Your task to perform on an android device: see tabs open on other devices in the chrome app Image 0: 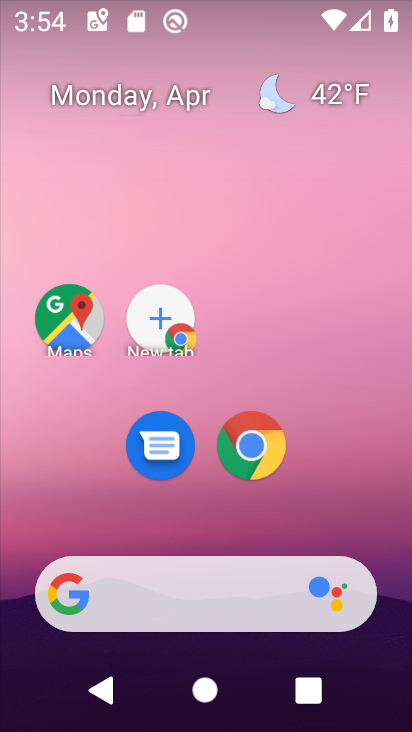
Step 0: click (249, 440)
Your task to perform on an android device: see tabs open on other devices in the chrome app Image 1: 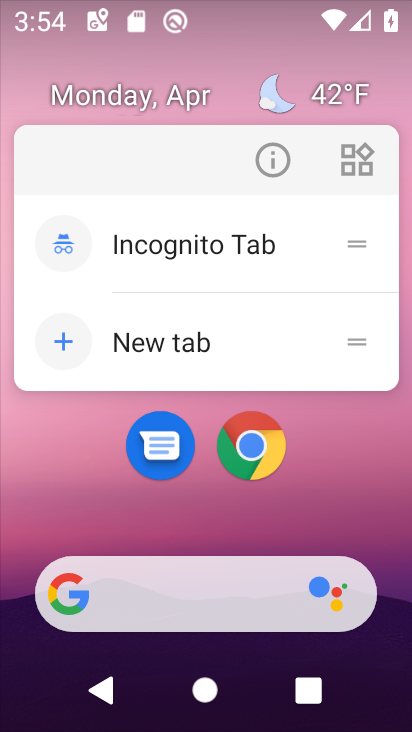
Step 1: click (249, 440)
Your task to perform on an android device: see tabs open on other devices in the chrome app Image 2: 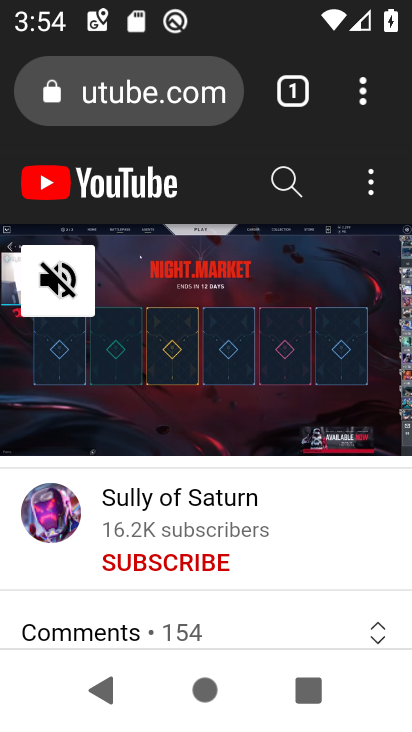
Step 2: click (365, 87)
Your task to perform on an android device: see tabs open on other devices in the chrome app Image 3: 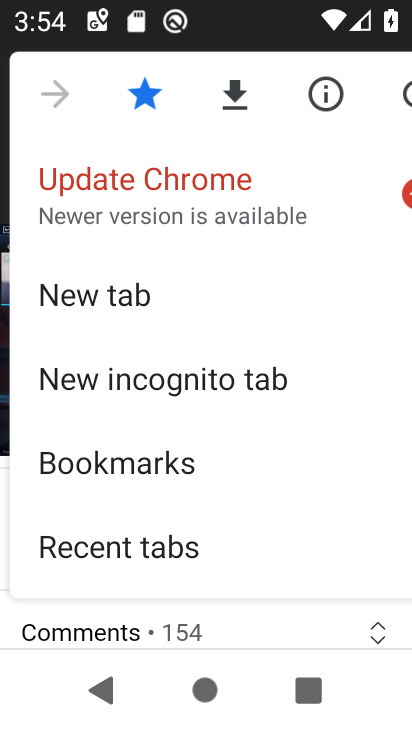
Step 3: drag from (201, 552) to (218, 362)
Your task to perform on an android device: see tabs open on other devices in the chrome app Image 4: 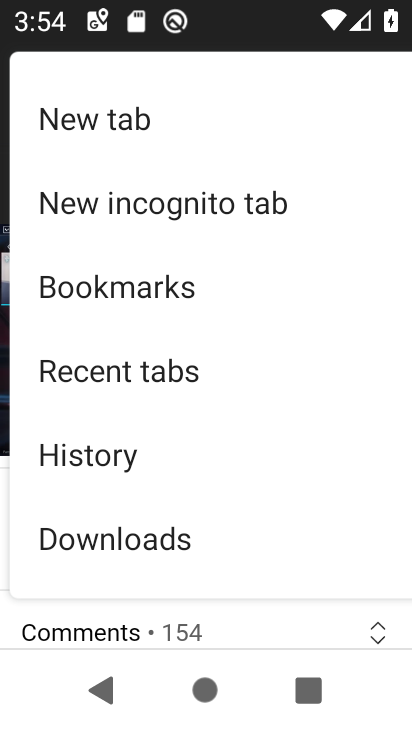
Step 4: click (213, 365)
Your task to perform on an android device: see tabs open on other devices in the chrome app Image 5: 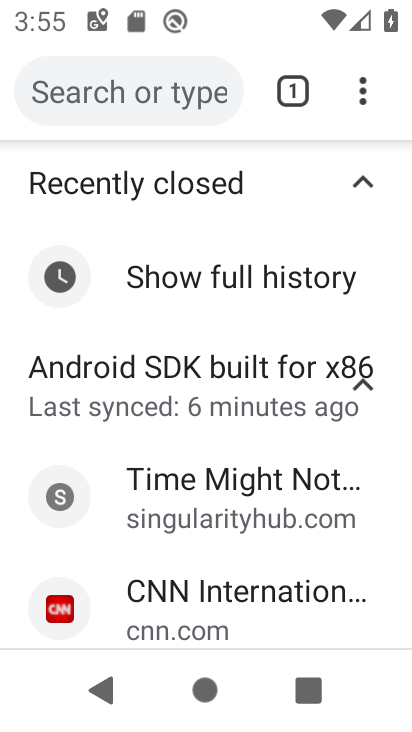
Step 5: task complete